Your task to perform on an android device: change the upload size in google photos Image 0: 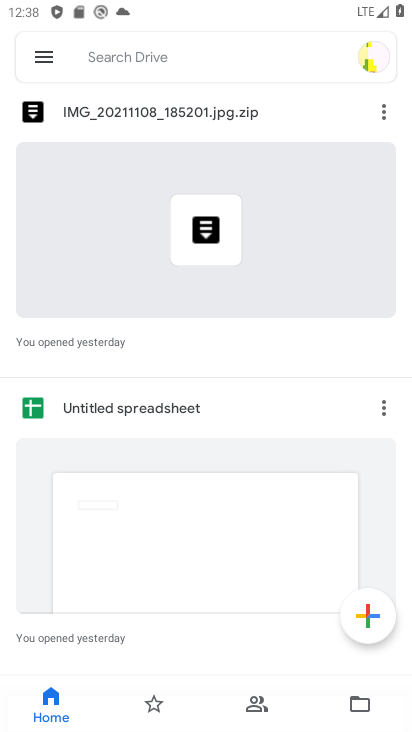
Step 0: press home button
Your task to perform on an android device: change the upload size in google photos Image 1: 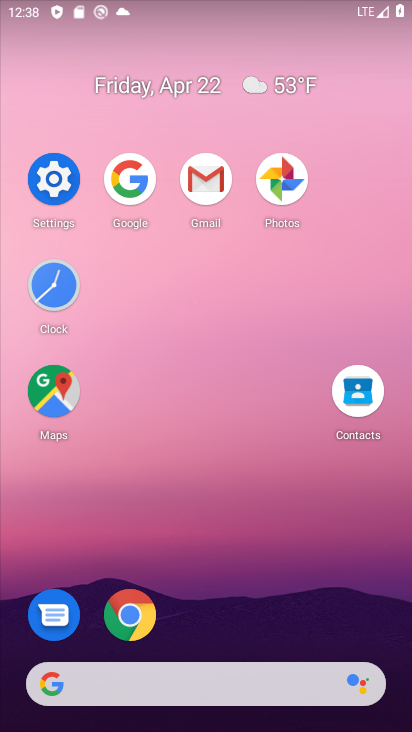
Step 1: click (279, 192)
Your task to perform on an android device: change the upload size in google photos Image 2: 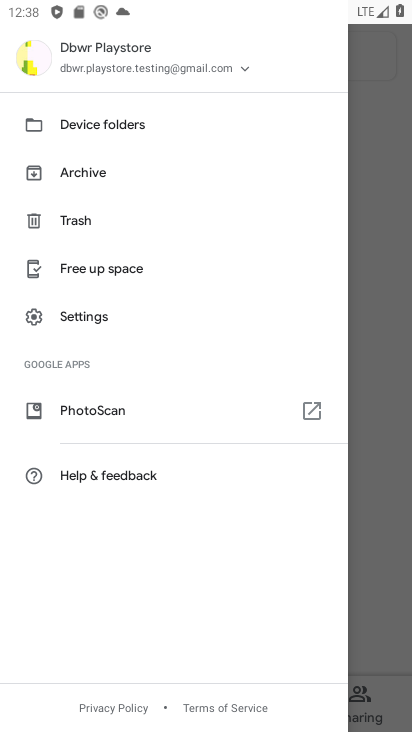
Step 2: click (103, 314)
Your task to perform on an android device: change the upload size in google photos Image 3: 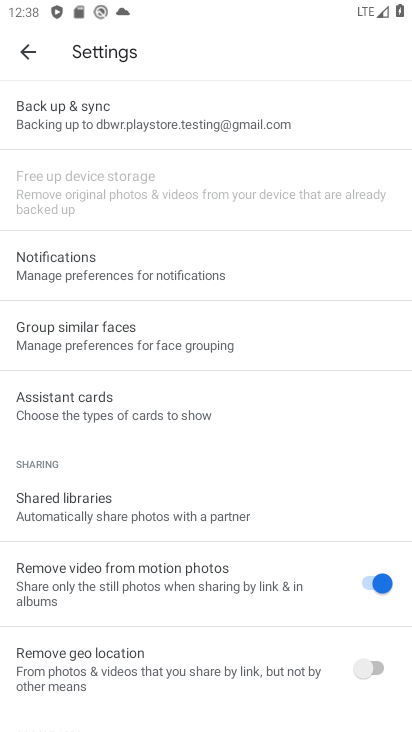
Step 3: click (201, 102)
Your task to perform on an android device: change the upload size in google photos Image 4: 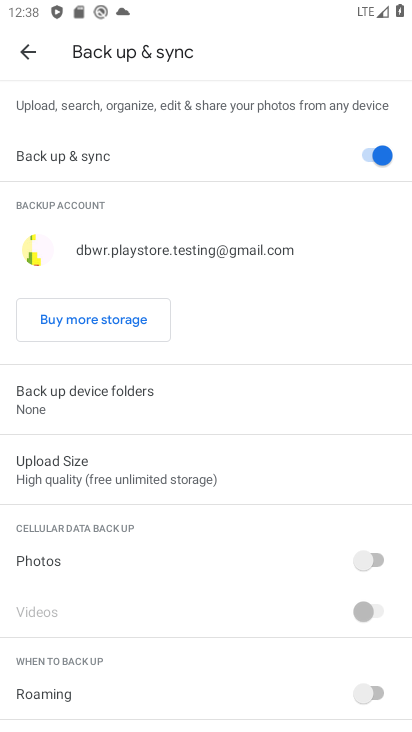
Step 4: click (144, 458)
Your task to perform on an android device: change the upload size in google photos Image 5: 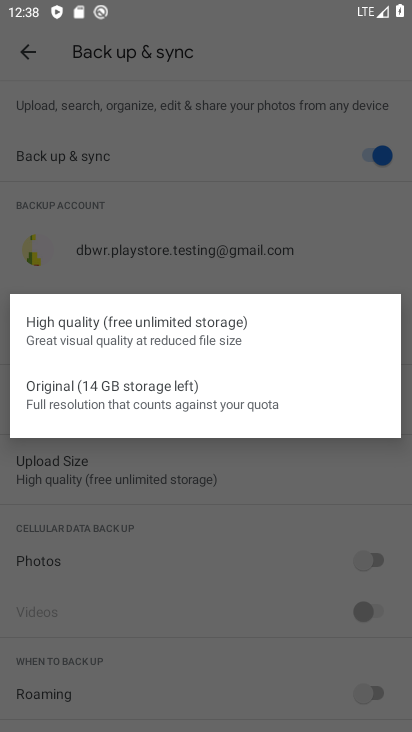
Step 5: click (204, 413)
Your task to perform on an android device: change the upload size in google photos Image 6: 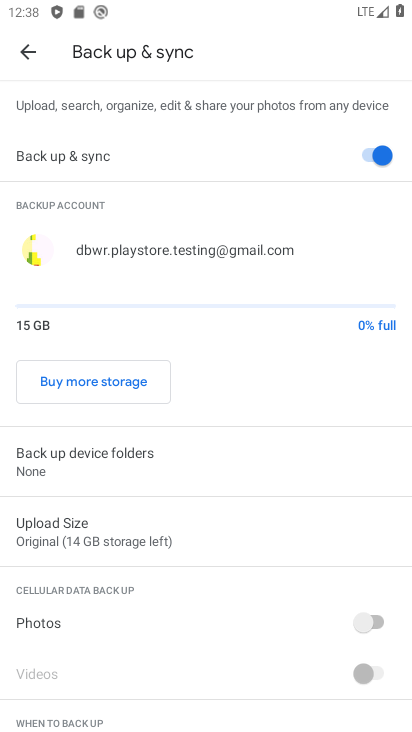
Step 6: task complete